Your task to perform on an android device: Check the news Image 0: 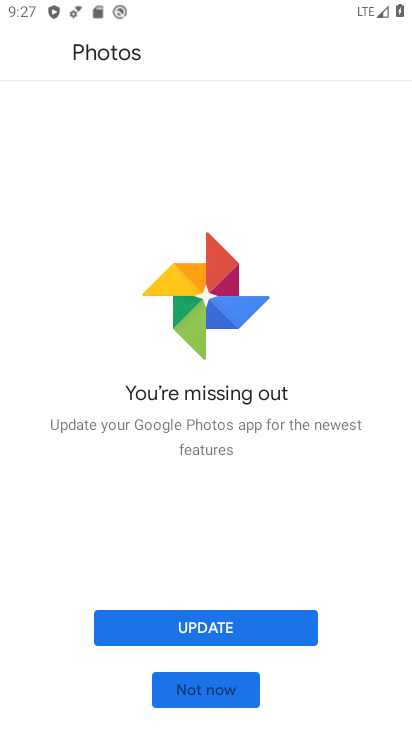
Step 0: press home button
Your task to perform on an android device: Check the news Image 1: 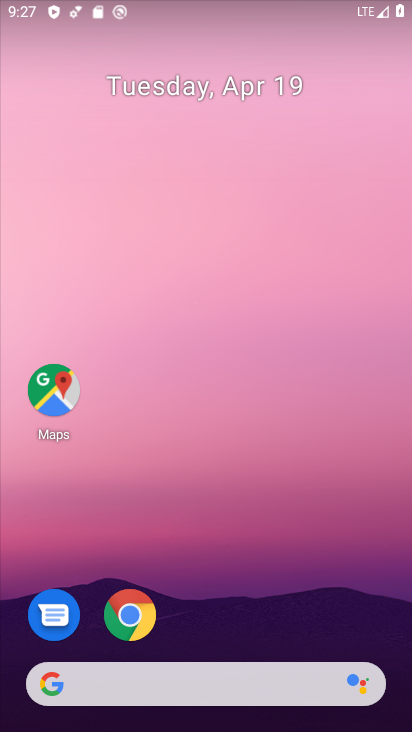
Step 1: click (279, 696)
Your task to perform on an android device: Check the news Image 2: 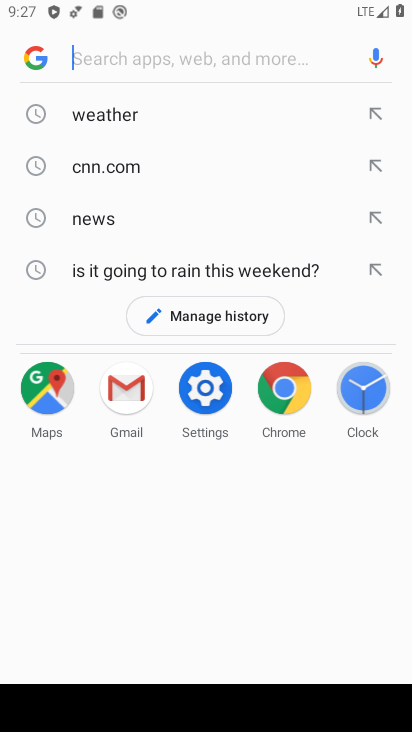
Step 2: click (30, 63)
Your task to perform on an android device: Check the news Image 3: 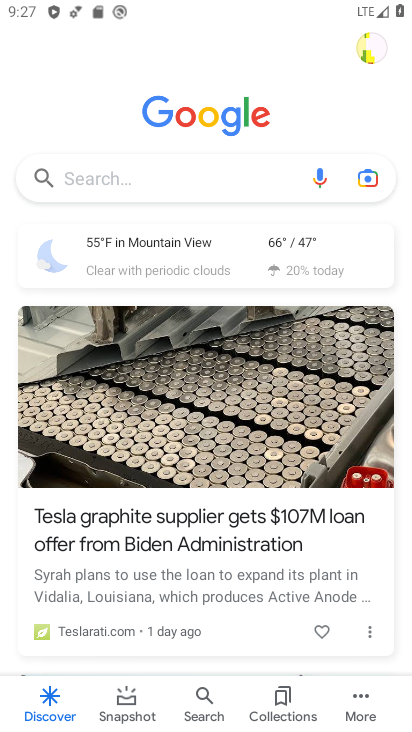
Step 3: task complete